Your task to perform on an android device: turn smart compose on in the gmail app Image 0: 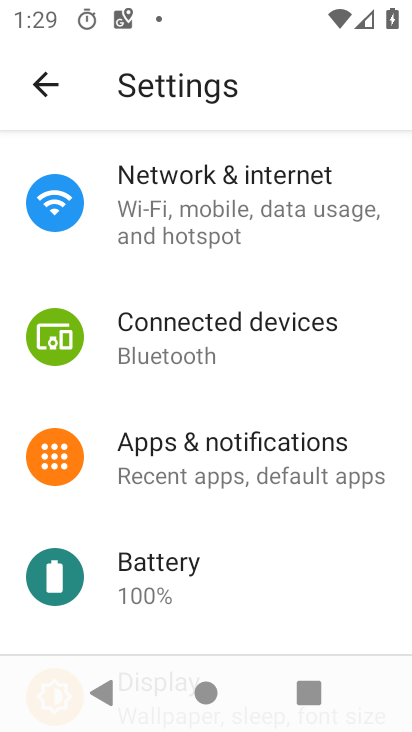
Step 0: press back button
Your task to perform on an android device: turn smart compose on in the gmail app Image 1: 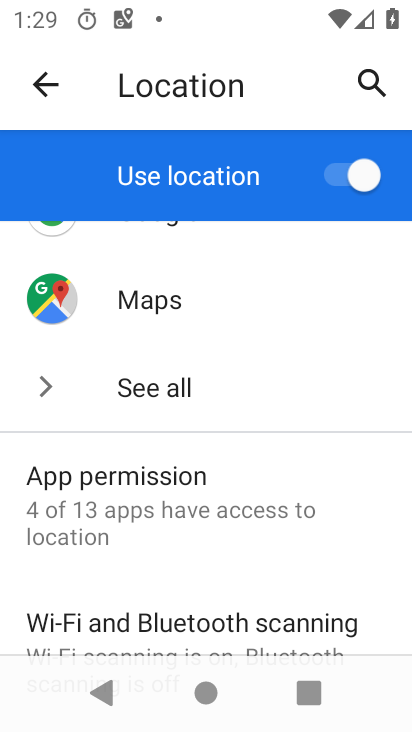
Step 1: drag from (283, 516) to (251, 195)
Your task to perform on an android device: turn smart compose on in the gmail app Image 2: 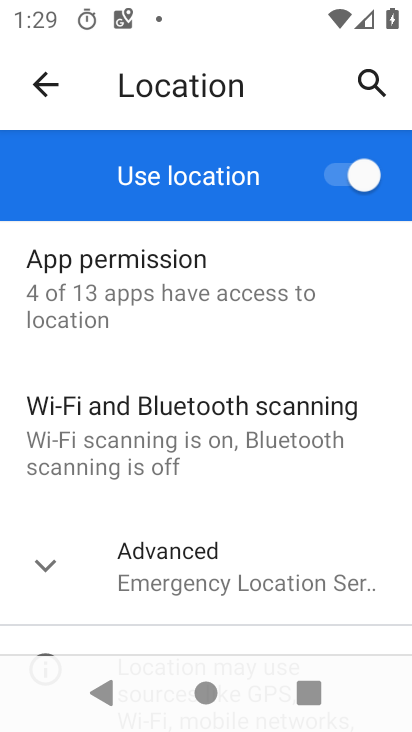
Step 2: click (58, 84)
Your task to perform on an android device: turn smart compose on in the gmail app Image 3: 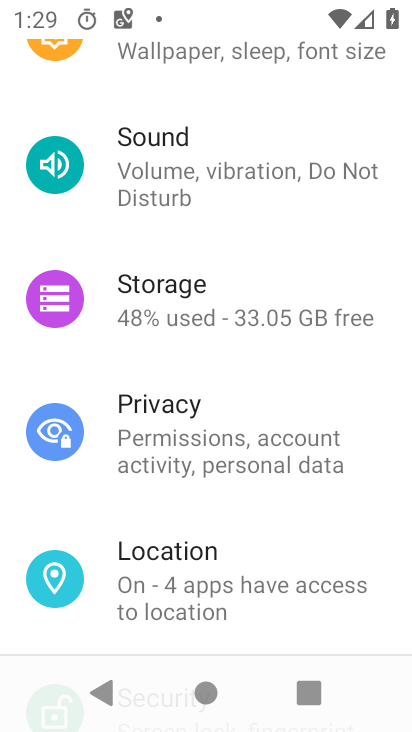
Step 3: drag from (299, 117) to (288, 580)
Your task to perform on an android device: turn smart compose on in the gmail app Image 4: 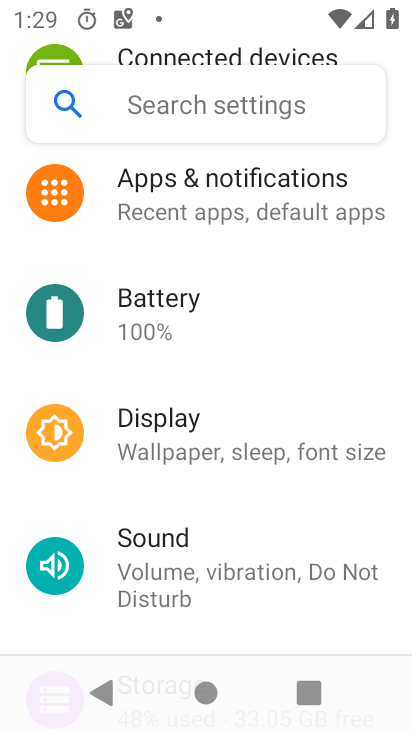
Step 4: drag from (252, 294) to (263, 575)
Your task to perform on an android device: turn smart compose on in the gmail app Image 5: 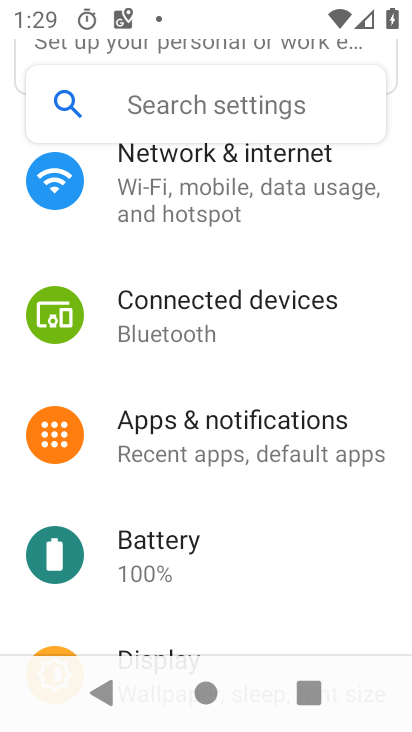
Step 5: press home button
Your task to perform on an android device: turn smart compose on in the gmail app Image 6: 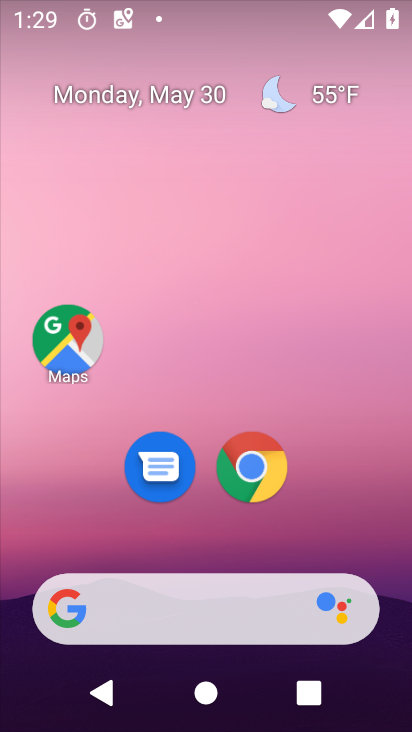
Step 6: drag from (379, 533) to (330, 115)
Your task to perform on an android device: turn smart compose on in the gmail app Image 7: 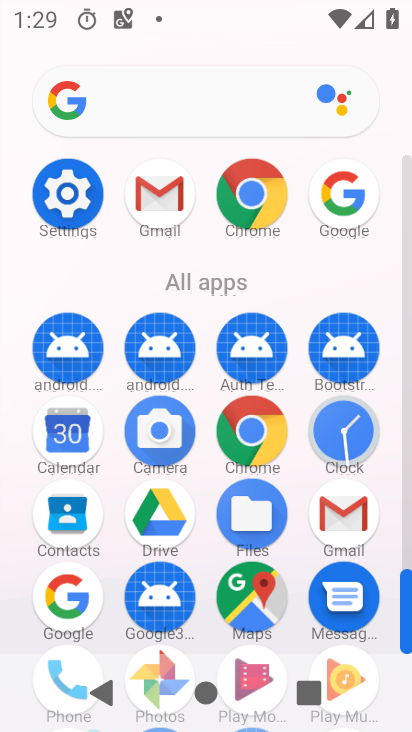
Step 7: click (149, 204)
Your task to perform on an android device: turn smart compose on in the gmail app Image 8: 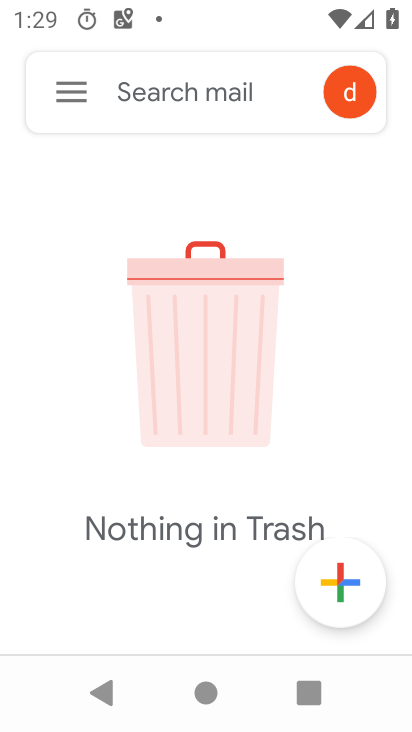
Step 8: click (66, 80)
Your task to perform on an android device: turn smart compose on in the gmail app Image 9: 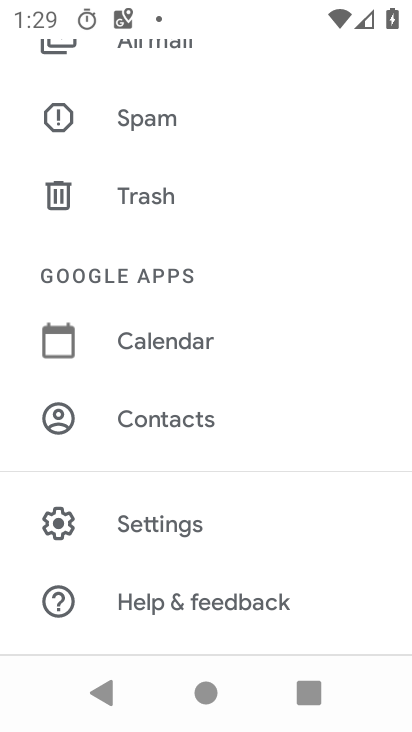
Step 9: click (162, 517)
Your task to perform on an android device: turn smart compose on in the gmail app Image 10: 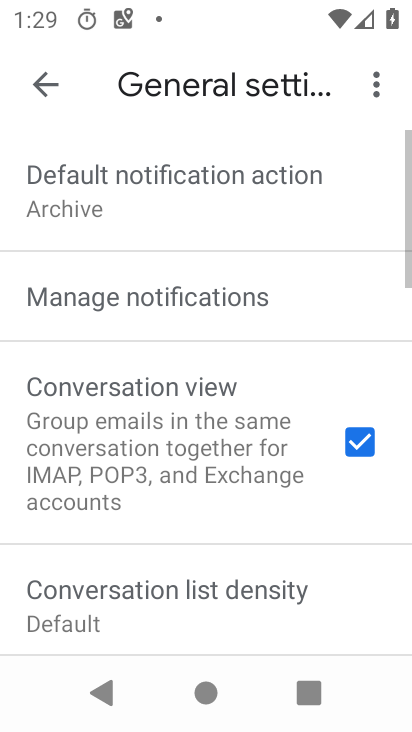
Step 10: drag from (232, 614) to (225, 150)
Your task to perform on an android device: turn smart compose on in the gmail app Image 11: 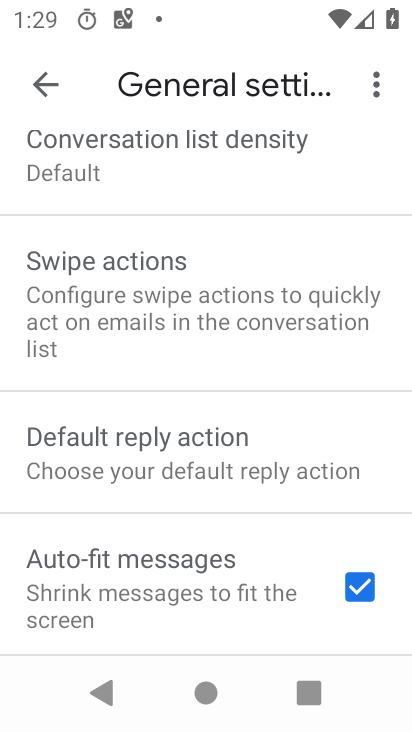
Step 11: drag from (167, 528) to (155, 282)
Your task to perform on an android device: turn smart compose on in the gmail app Image 12: 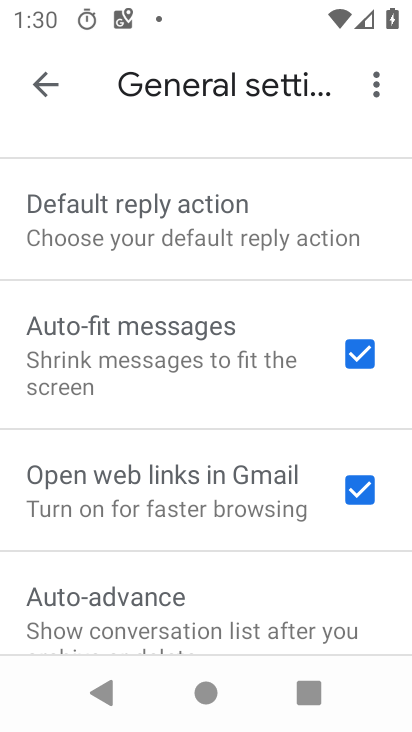
Step 12: drag from (133, 607) to (158, 275)
Your task to perform on an android device: turn smart compose on in the gmail app Image 13: 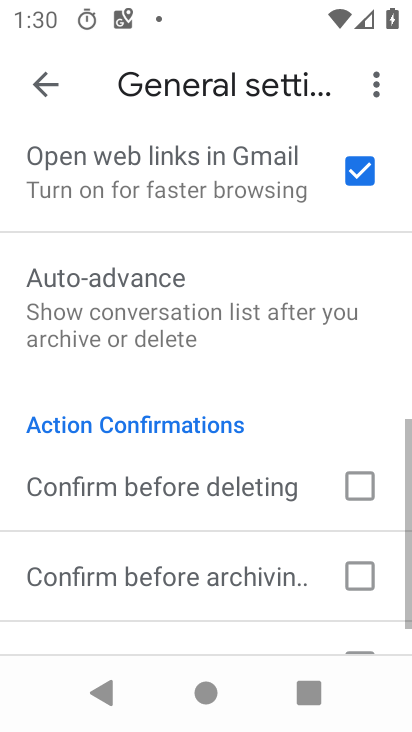
Step 13: drag from (141, 587) to (143, 291)
Your task to perform on an android device: turn smart compose on in the gmail app Image 14: 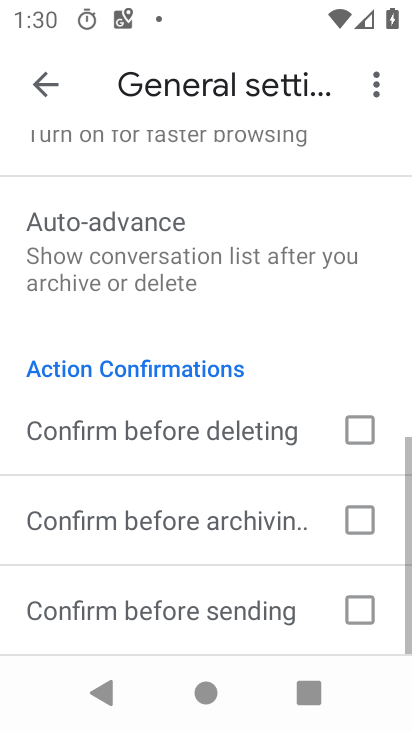
Step 14: drag from (136, 601) to (156, 351)
Your task to perform on an android device: turn smart compose on in the gmail app Image 15: 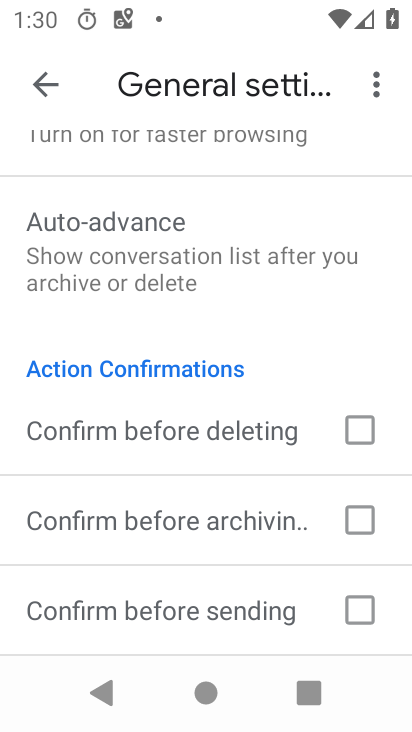
Step 15: drag from (190, 620) to (188, 236)
Your task to perform on an android device: turn smart compose on in the gmail app Image 16: 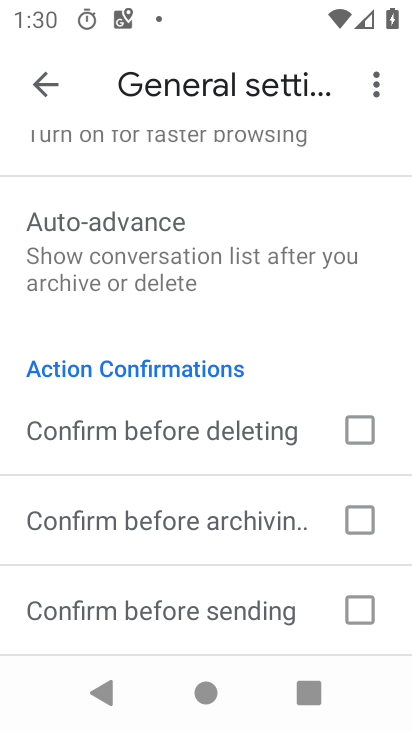
Step 16: drag from (191, 190) to (227, 583)
Your task to perform on an android device: turn smart compose on in the gmail app Image 17: 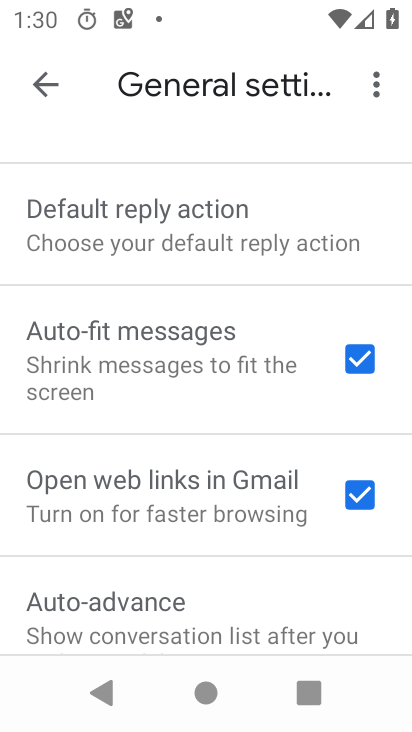
Step 17: drag from (201, 215) to (212, 537)
Your task to perform on an android device: turn smart compose on in the gmail app Image 18: 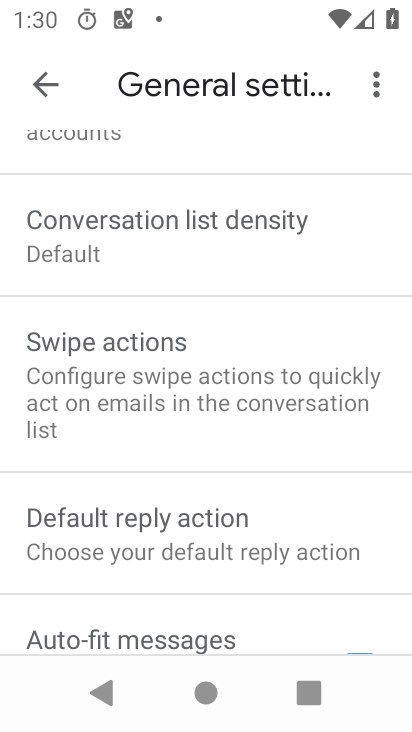
Step 18: drag from (185, 297) to (196, 560)
Your task to perform on an android device: turn smart compose on in the gmail app Image 19: 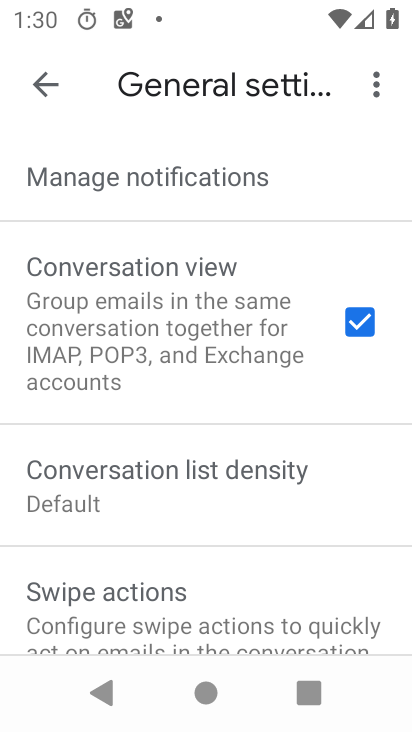
Step 19: click (36, 82)
Your task to perform on an android device: turn smart compose on in the gmail app Image 20: 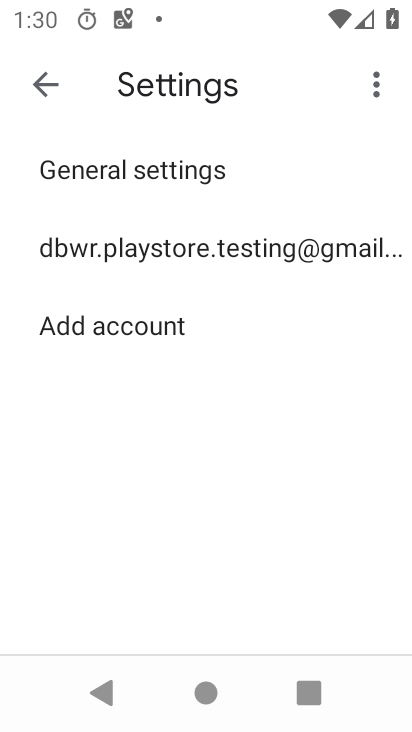
Step 20: click (107, 256)
Your task to perform on an android device: turn smart compose on in the gmail app Image 21: 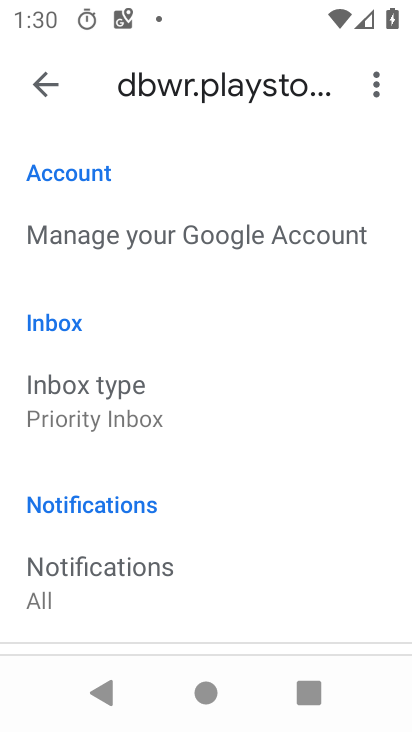
Step 21: task complete